Your task to perform on an android device: set the stopwatch Image 0: 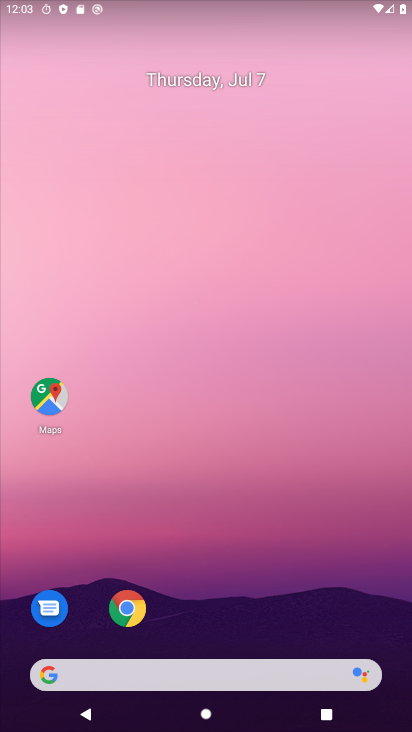
Step 0: drag from (314, 668) to (283, 22)
Your task to perform on an android device: set the stopwatch Image 1: 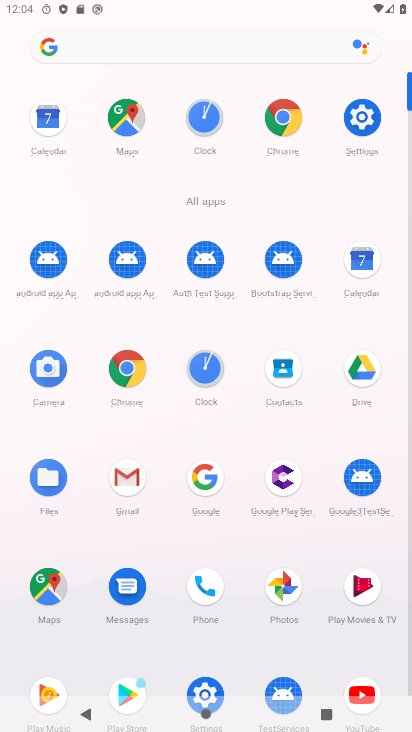
Step 1: click (207, 369)
Your task to perform on an android device: set the stopwatch Image 2: 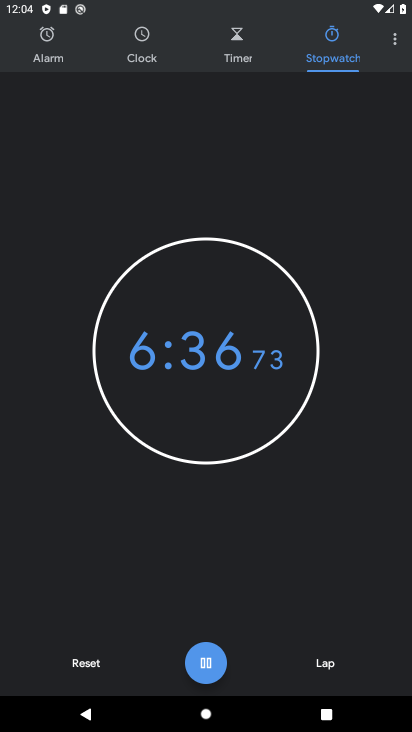
Step 2: task complete